Your task to perform on an android device: Open Amazon Image 0: 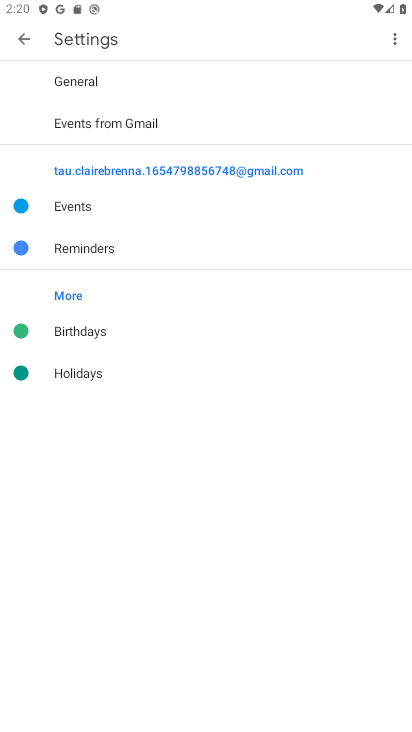
Step 0: press home button
Your task to perform on an android device: Open Amazon Image 1: 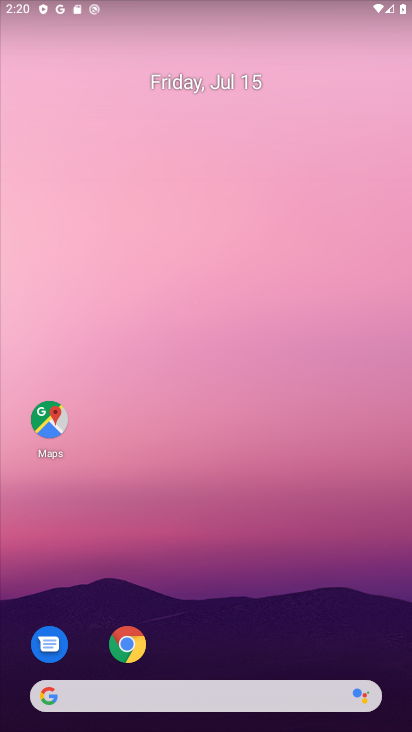
Step 1: click (132, 638)
Your task to perform on an android device: Open Amazon Image 2: 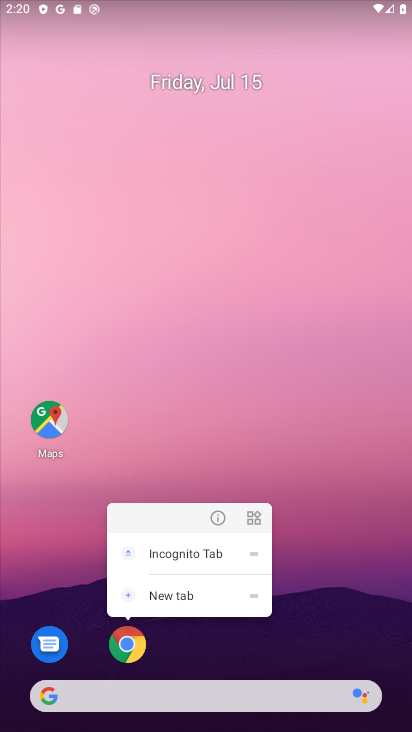
Step 2: click (132, 638)
Your task to perform on an android device: Open Amazon Image 3: 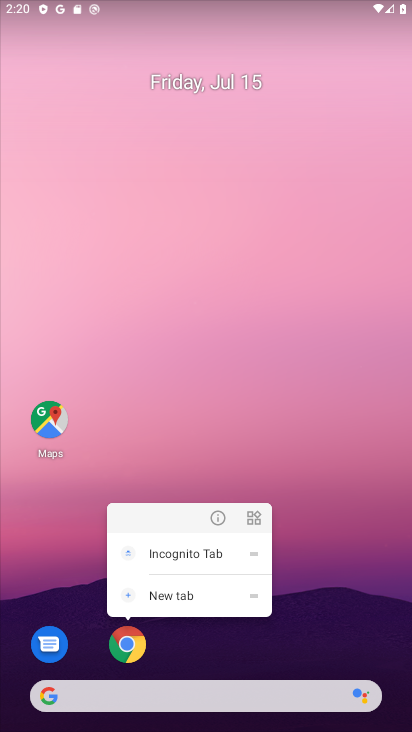
Step 3: click (132, 645)
Your task to perform on an android device: Open Amazon Image 4: 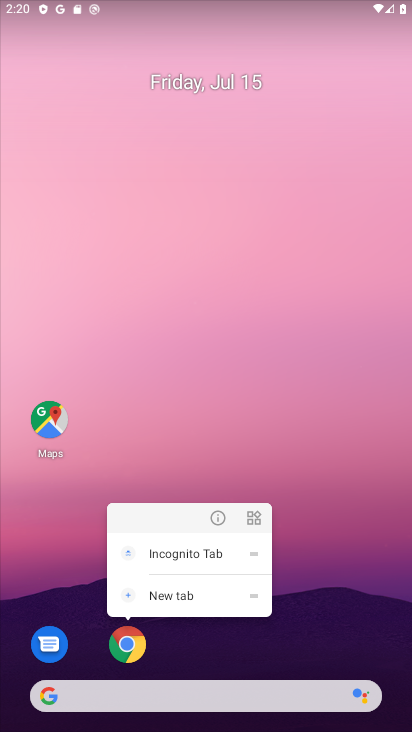
Step 4: click (132, 645)
Your task to perform on an android device: Open Amazon Image 5: 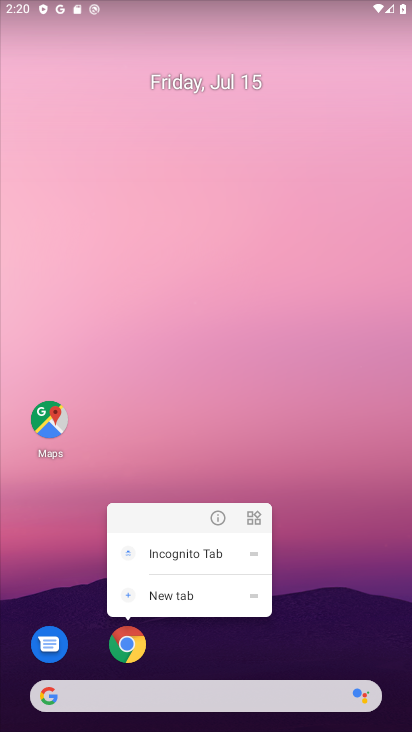
Step 5: click (135, 648)
Your task to perform on an android device: Open Amazon Image 6: 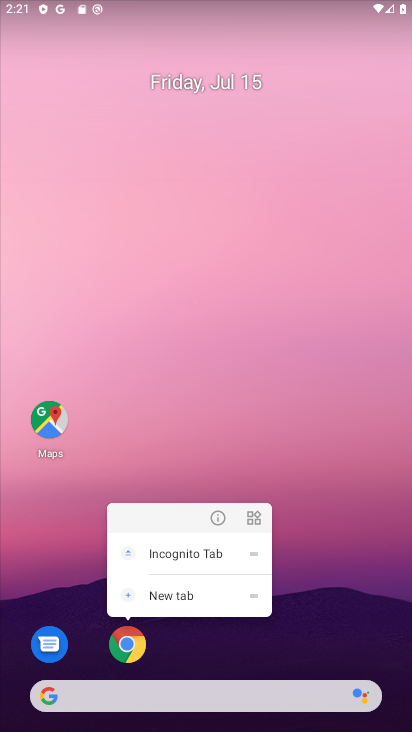
Step 6: click (128, 659)
Your task to perform on an android device: Open Amazon Image 7: 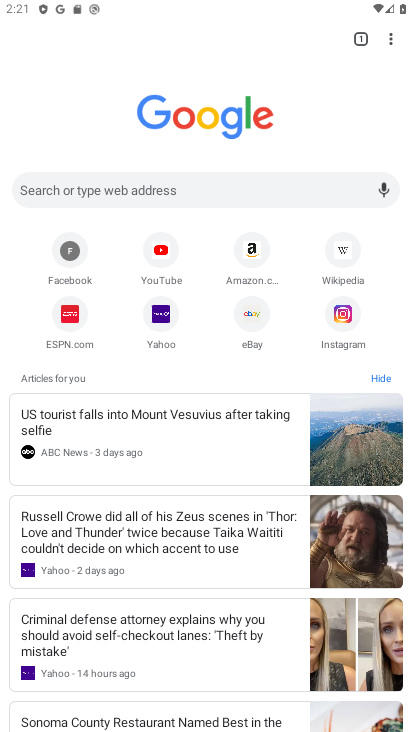
Step 7: click (254, 243)
Your task to perform on an android device: Open Amazon Image 8: 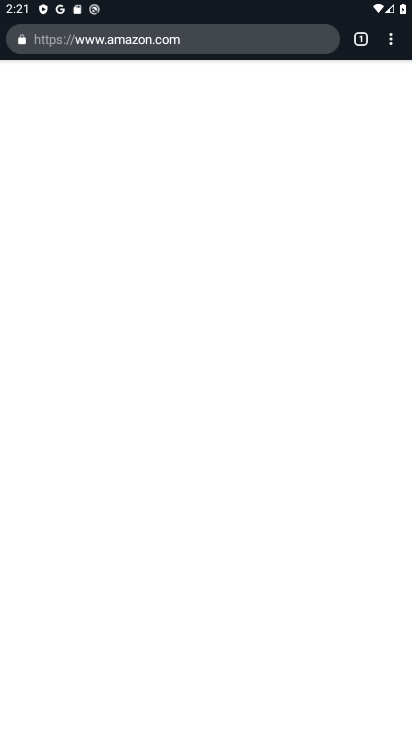
Step 8: task complete